Your task to perform on an android device: Open Google Chrome and click the shortcut for Amazon.com Image 0: 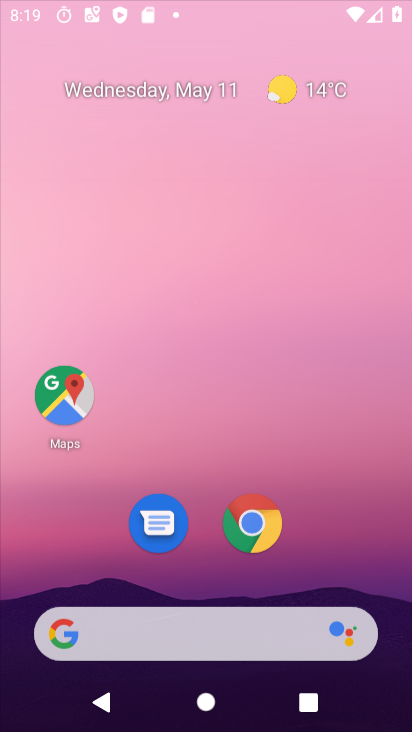
Step 0: click (324, 202)
Your task to perform on an android device: Open Google Chrome and click the shortcut for Amazon.com Image 1: 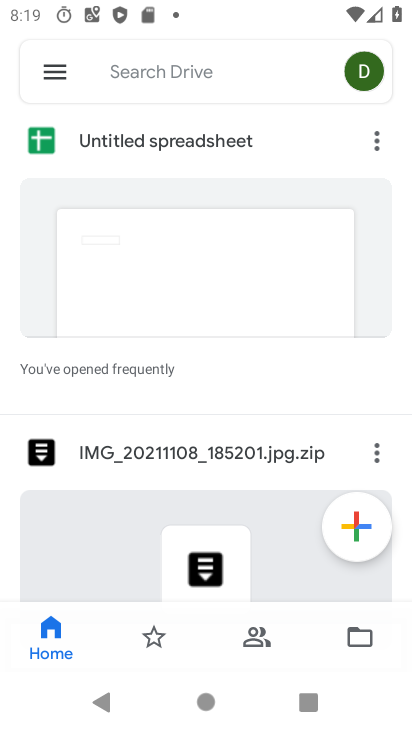
Step 1: press home button
Your task to perform on an android device: Open Google Chrome and click the shortcut for Amazon.com Image 2: 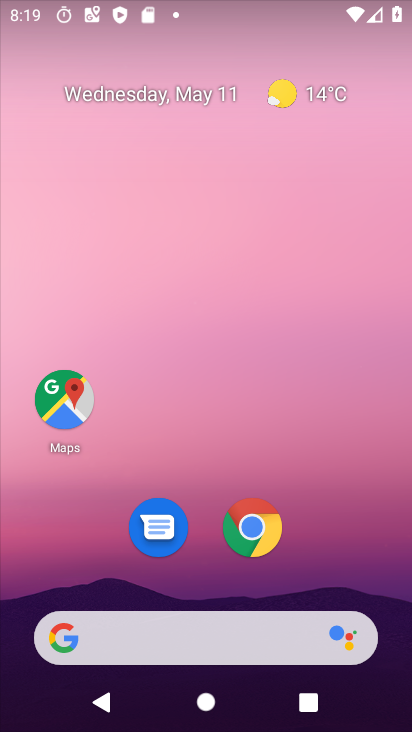
Step 2: drag from (212, 606) to (197, 187)
Your task to perform on an android device: Open Google Chrome and click the shortcut for Amazon.com Image 3: 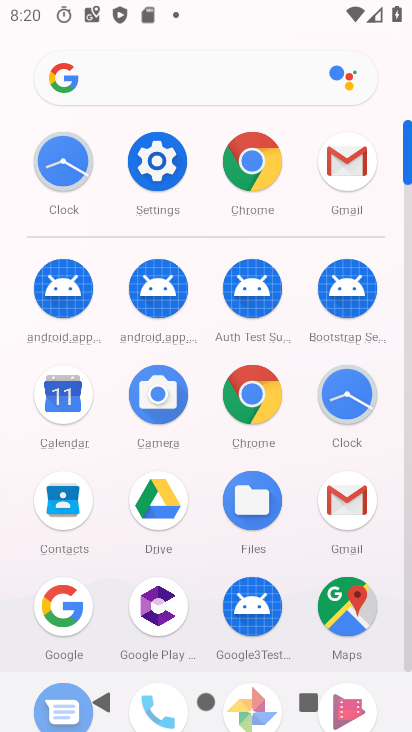
Step 3: click (261, 419)
Your task to perform on an android device: Open Google Chrome and click the shortcut for Amazon.com Image 4: 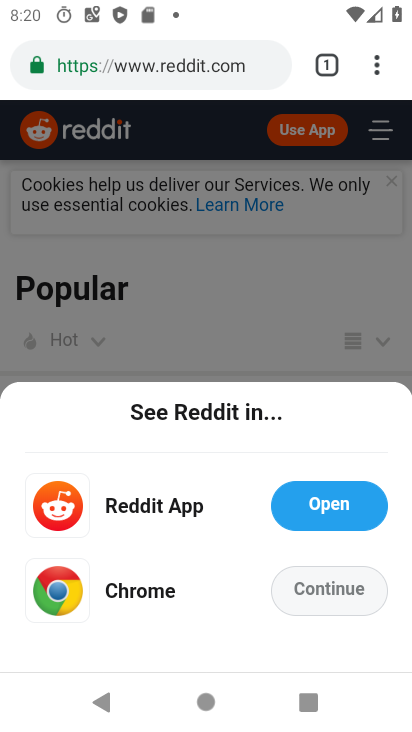
Step 4: drag from (272, 70) to (272, 299)
Your task to perform on an android device: Open Google Chrome and click the shortcut for Amazon.com Image 5: 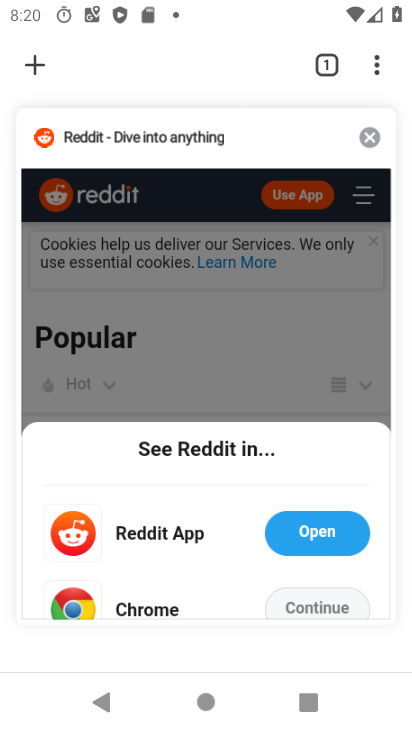
Step 5: click (35, 61)
Your task to perform on an android device: Open Google Chrome and click the shortcut for Amazon.com Image 6: 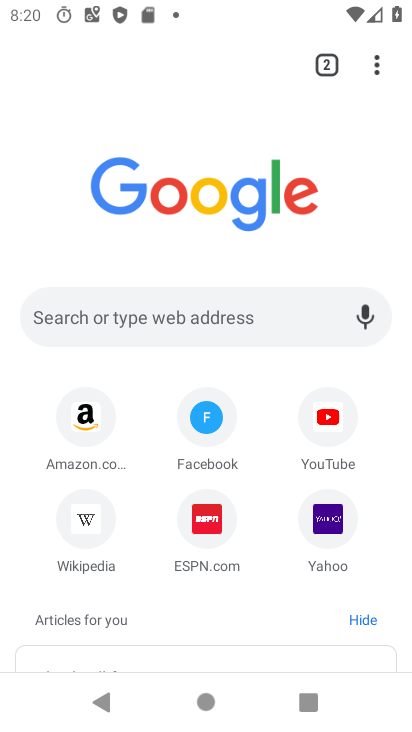
Step 6: click (92, 416)
Your task to perform on an android device: Open Google Chrome and click the shortcut for Amazon.com Image 7: 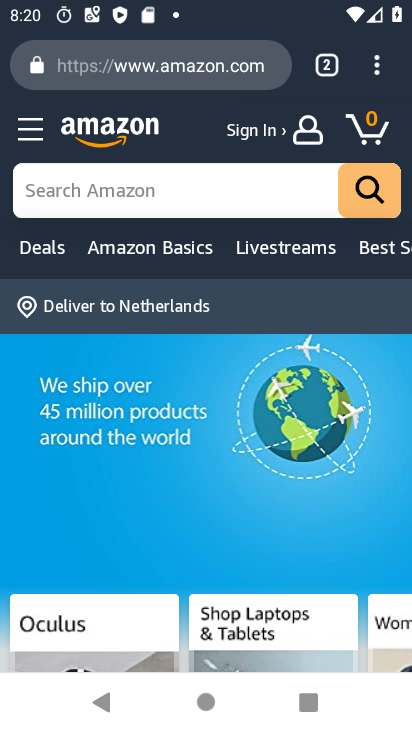
Step 7: task complete